Your task to perform on an android device: See recent photos Image 0: 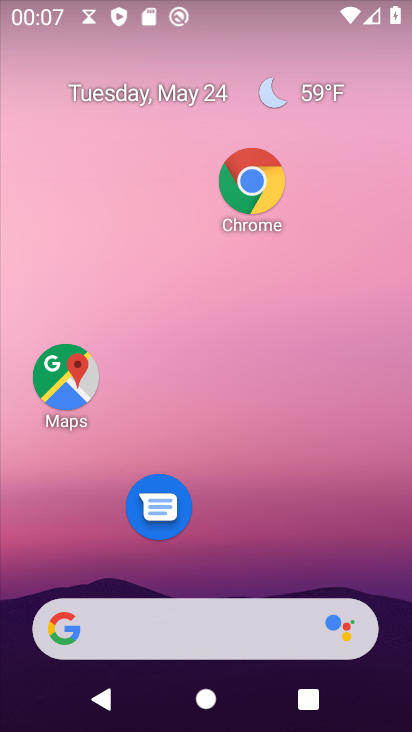
Step 0: drag from (294, 530) to (312, 307)
Your task to perform on an android device: See recent photos Image 1: 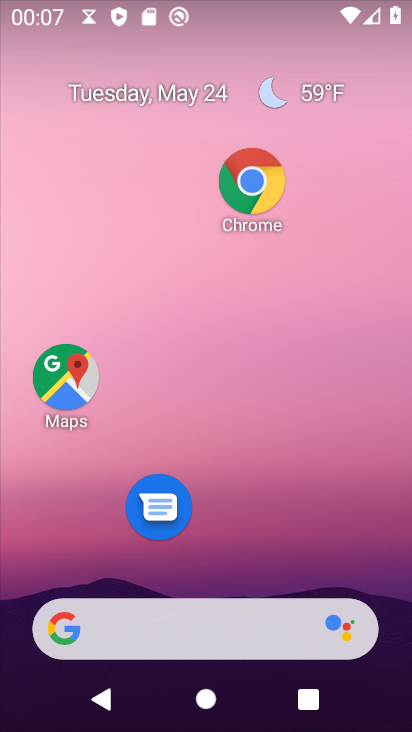
Step 1: drag from (263, 543) to (309, 196)
Your task to perform on an android device: See recent photos Image 2: 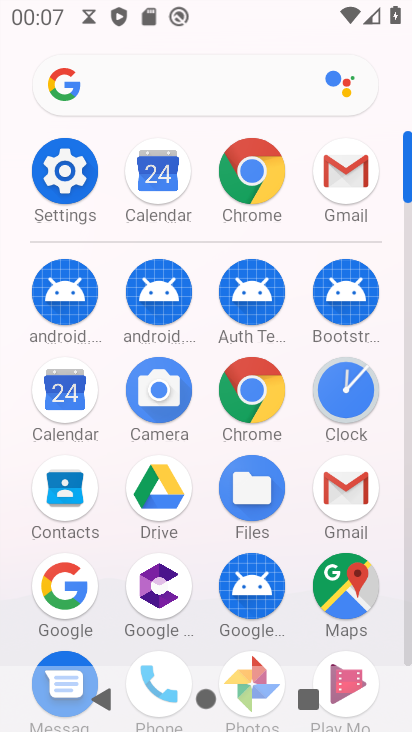
Step 2: drag from (239, 636) to (256, 383)
Your task to perform on an android device: See recent photos Image 3: 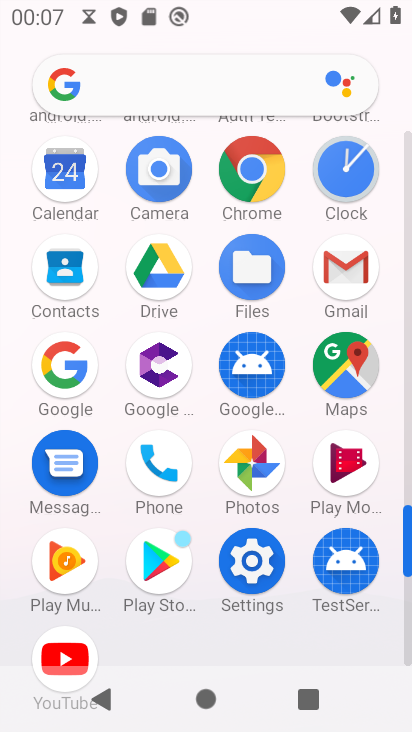
Step 3: click (244, 449)
Your task to perform on an android device: See recent photos Image 4: 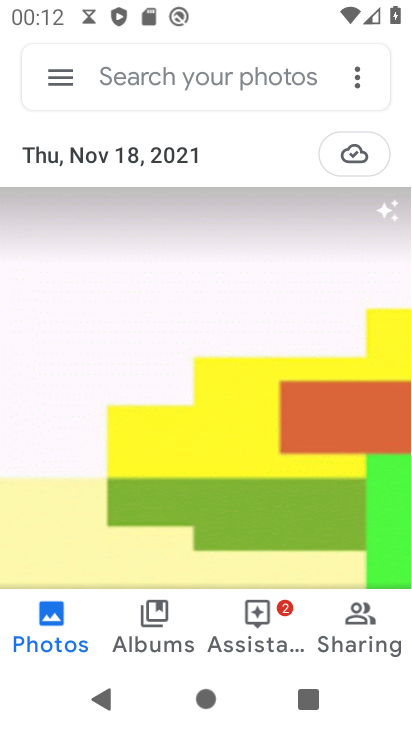
Step 4: task complete